Your task to perform on an android device: Search for sushi restaurants on Maps Image 0: 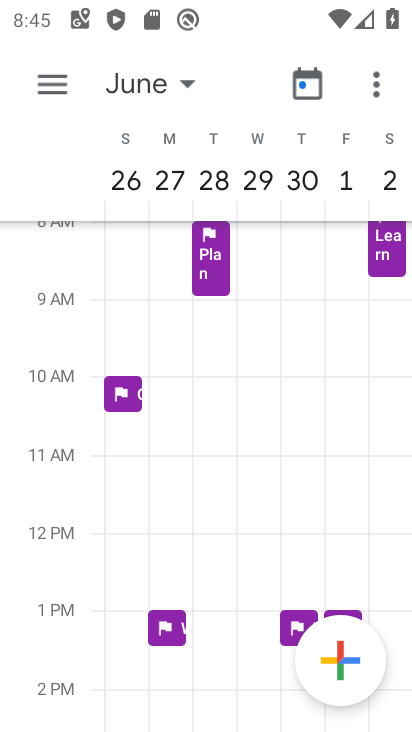
Step 0: press home button
Your task to perform on an android device: Search for sushi restaurants on Maps Image 1: 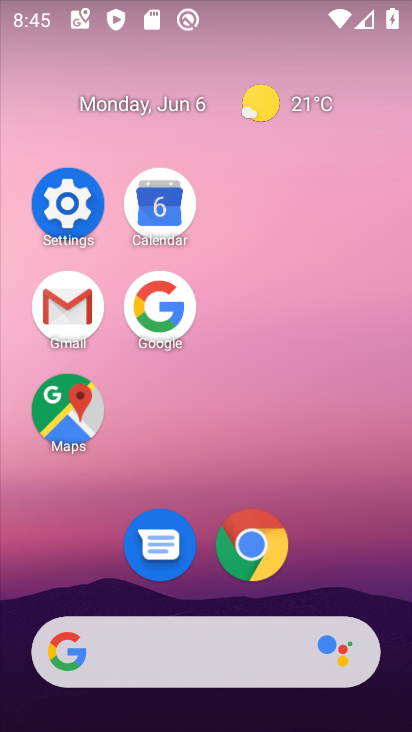
Step 1: click (66, 407)
Your task to perform on an android device: Search for sushi restaurants on Maps Image 2: 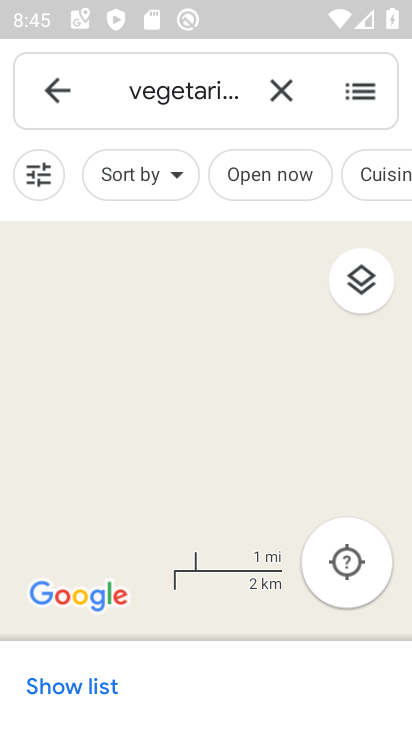
Step 2: click (266, 98)
Your task to perform on an android device: Search for sushi restaurants on Maps Image 3: 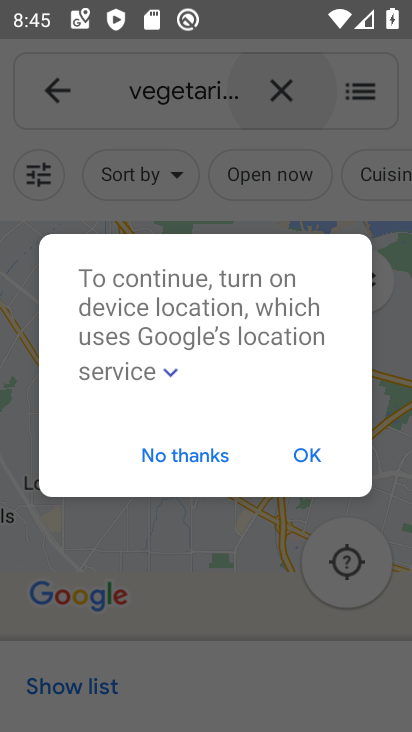
Step 3: click (317, 447)
Your task to perform on an android device: Search for sushi restaurants on Maps Image 4: 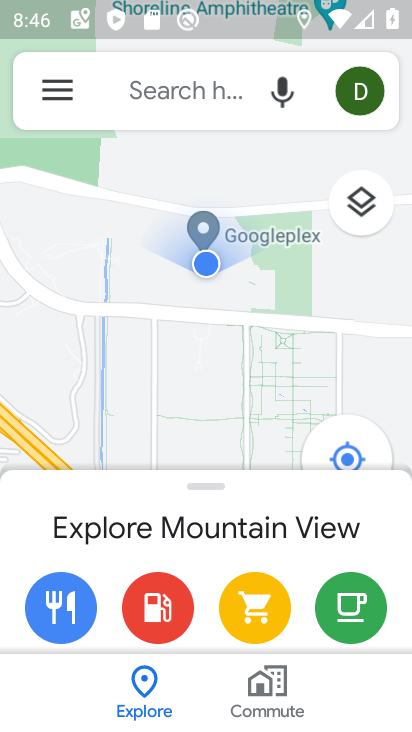
Step 4: click (160, 97)
Your task to perform on an android device: Search for sushi restaurants on Maps Image 5: 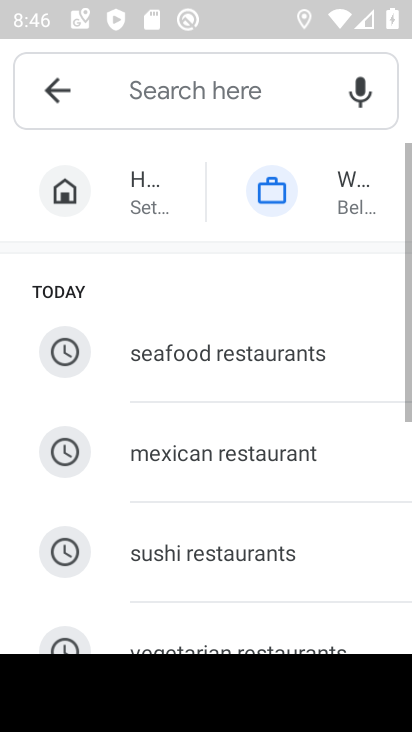
Step 5: click (237, 570)
Your task to perform on an android device: Search for sushi restaurants on Maps Image 6: 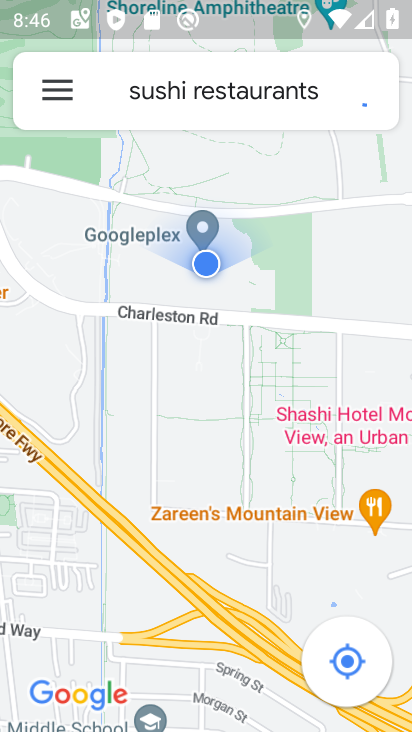
Step 6: task complete